Your task to perform on an android device: change your default location settings in chrome Image 0: 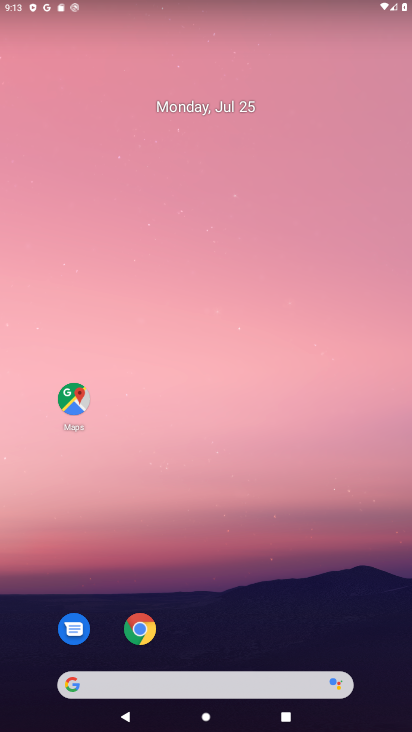
Step 0: click (150, 629)
Your task to perform on an android device: change your default location settings in chrome Image 1: 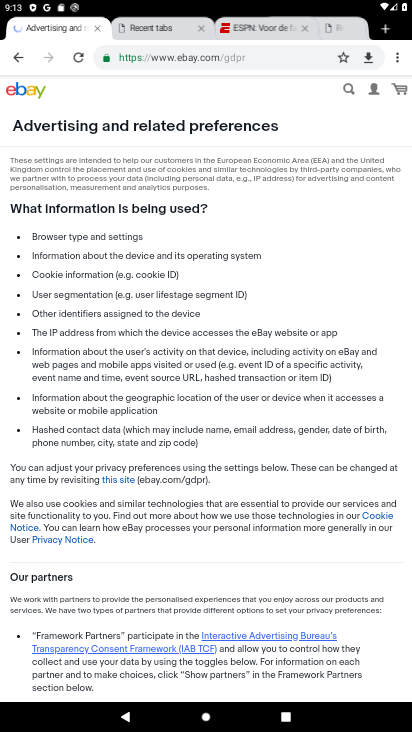
Step 1: click (402, 61)
Your task to perform on an android device: change your default location settings in chrome Image 2: 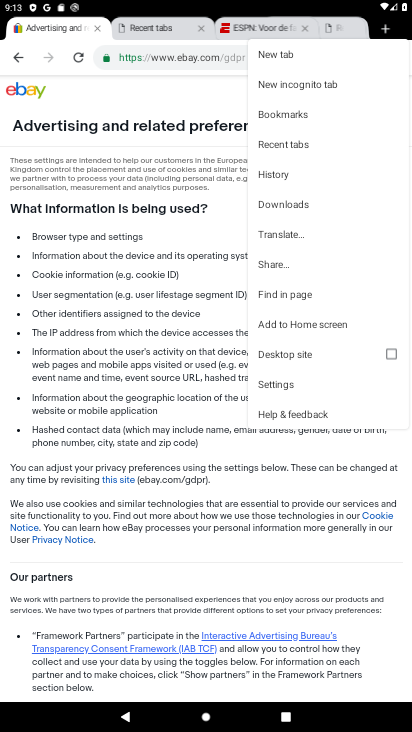
Step 2: click (315, 390)
Your task to perform on an android device: change your default location settings in chrome Image 3: 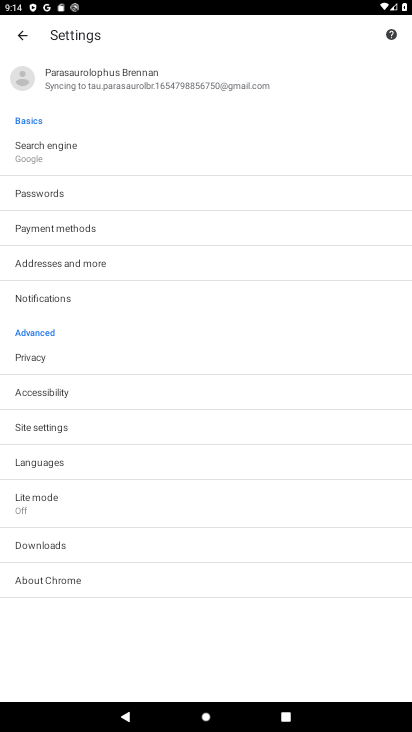
Step 3: click (23, 39)
Your task to perform on an android device: change your default location settings in chrome Image 4: 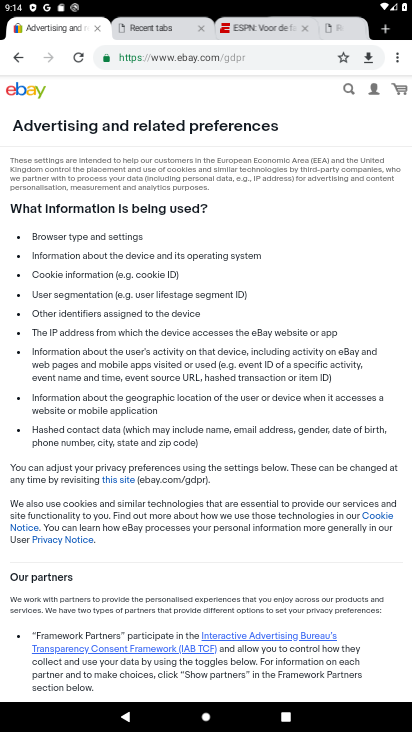
Step 4: click (404, 56)
Your task to perform on an android device: change your default location settings in chrome Image 5: 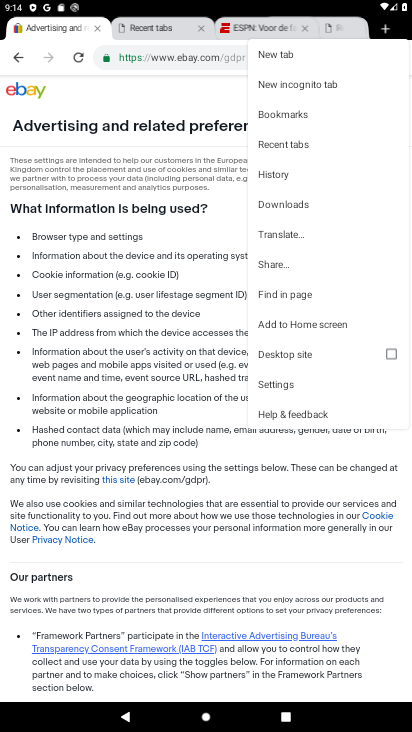
Step 5: click (279, 388)
Your task to perform on an android device: change your default location settings in chrome Image 6: 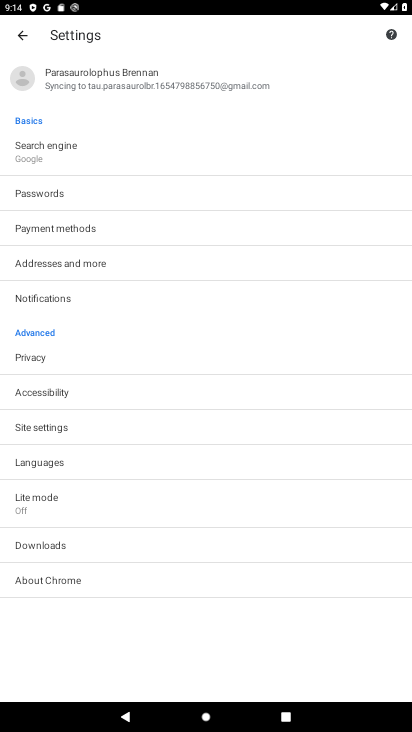
Step 6: click (30, 416)
Your task to perform on an android device: change your default location settings in chrome Image 7: 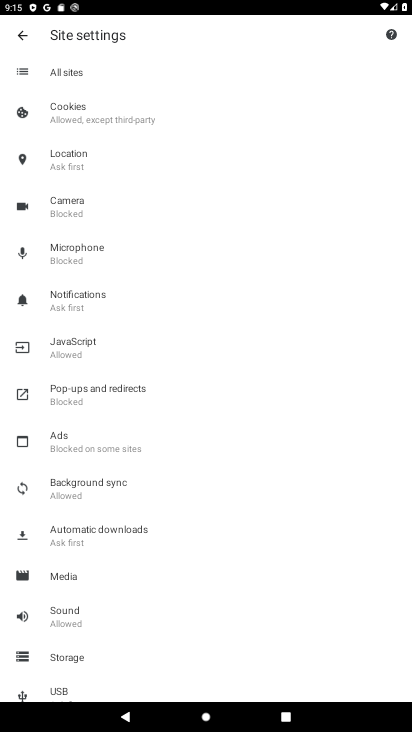
Step 7: click (109, 157)
Your task to perform on an android device: change your default location settings in chrome Image 8: 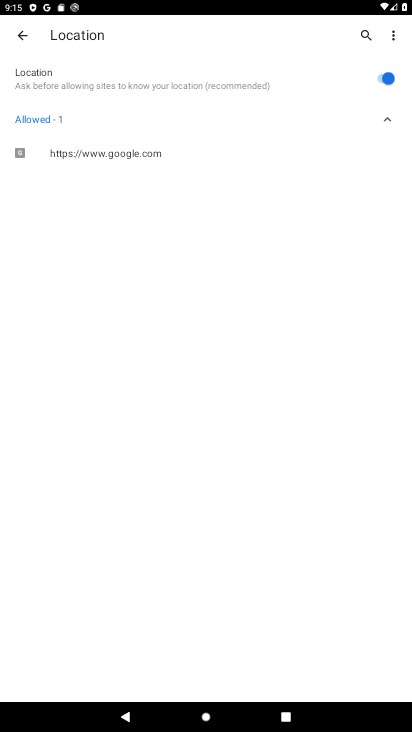
Step 8: click (385, 82)
Your task to perform on an android device: change your default location settings in chrome Image 9: 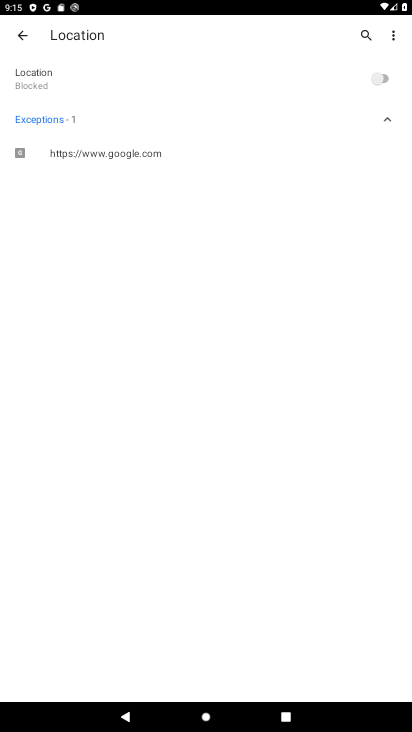
Step 9: task complete